Your task to perform on an android device: open chrome privacy settings Image 0: 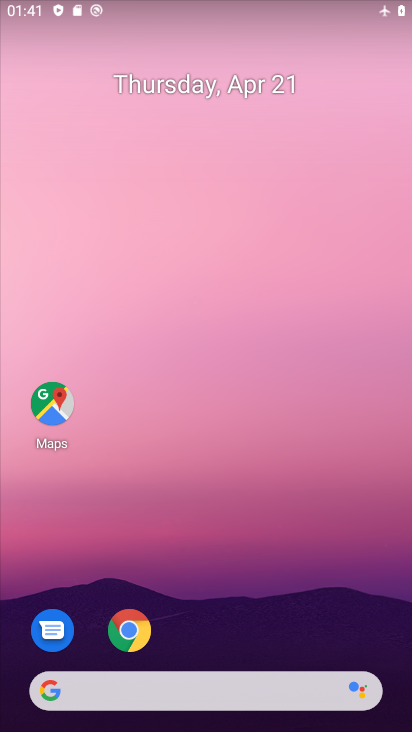
Step 0: click (140, 634)
Your task to perform on an android device: open chrome privacy settings Image 1: 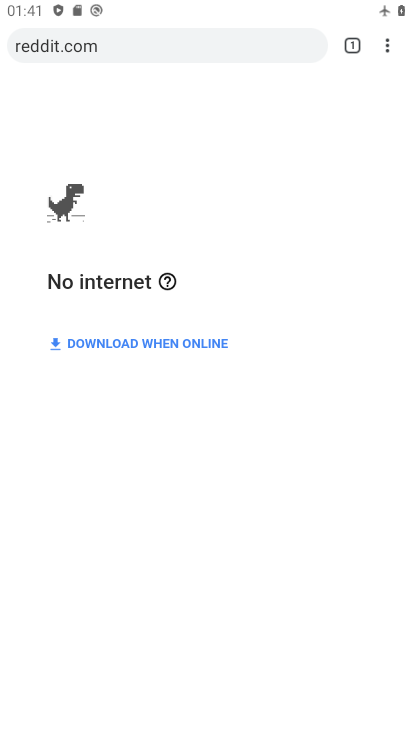
Step 1: click (386, 58)
Your task to perform on an android device: open chrome privacy settings Image 2: 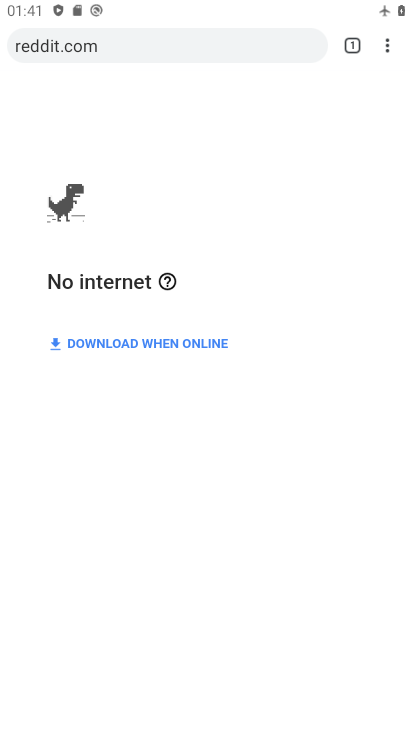
Step 2: click (383, 39)
Your task to perform on an android device: open chrome privacy settings Image 3: 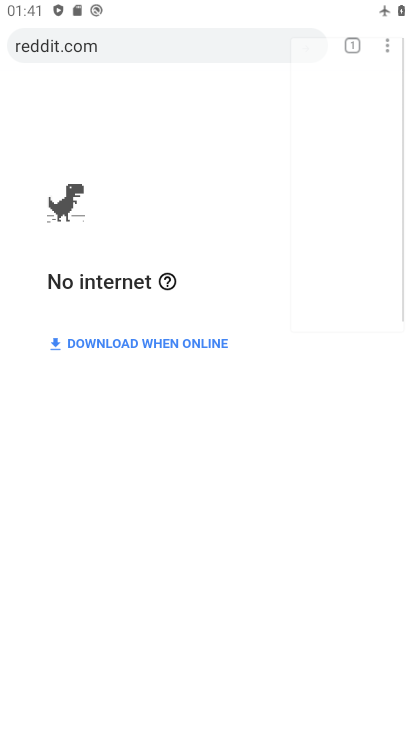
Step 3: click (383, 39)
Your task to perform on an android device: open chrome privacy settings Image 4: 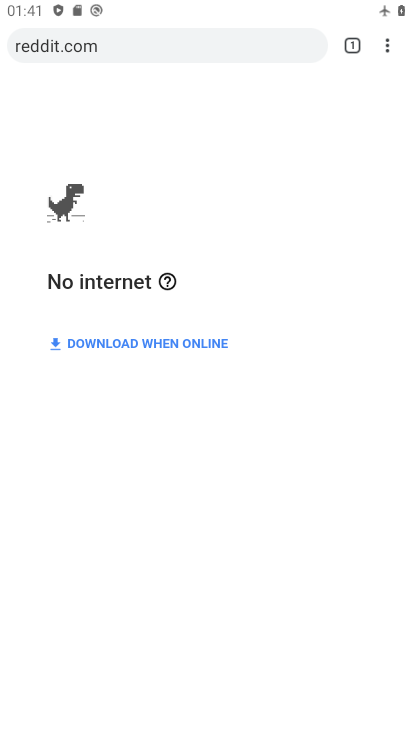
Step 4: click (383, 55)
Your task to perform on an android device: open chrome privacy settings Image 5: 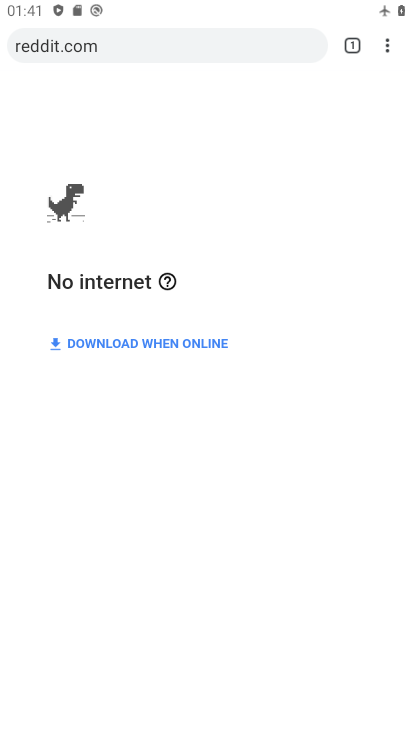
Step 5: click (390, 48)
Your task to perform on an android device: open chrome privacy settings Image 6: 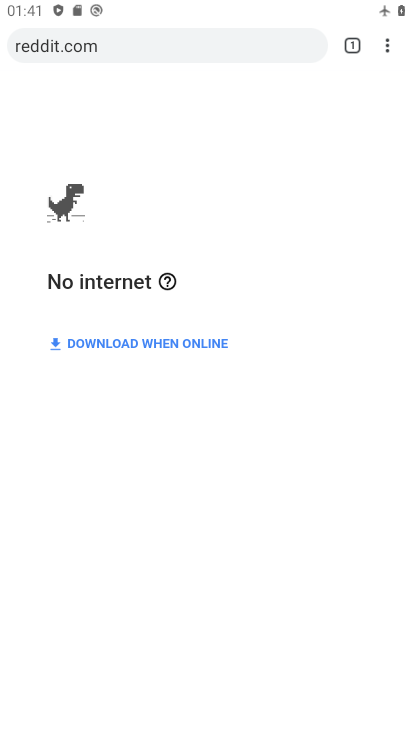
Step 6: click (390, 49)
Your task to perform on an android device: open chrome privacy settings Image 7: 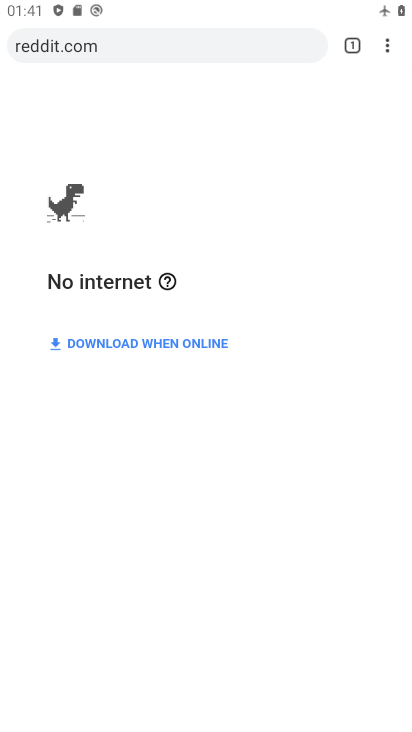
Step 7: click (391, 53)
Your task to perform on an android device: open chrome privacy settings Image 8: 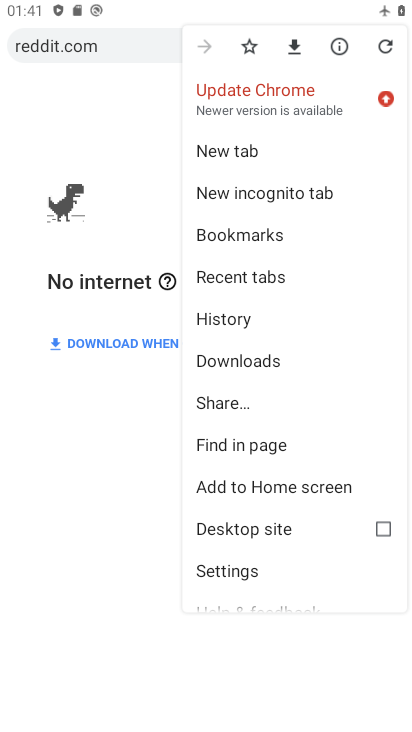
Step 8: click (257, 573)
Your task to perform on an android device: open chrome privacy settings Image 9: 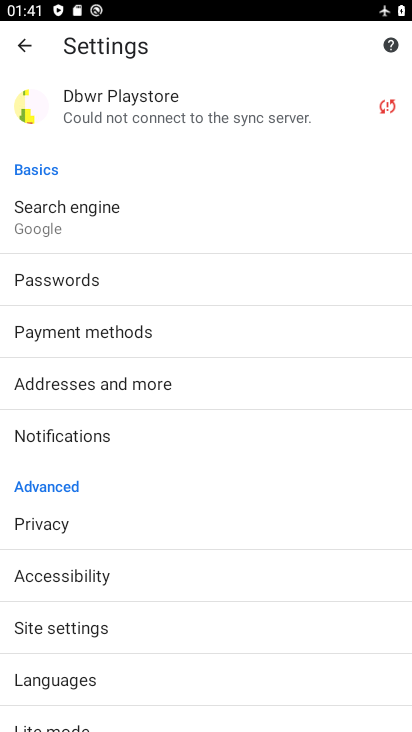
Step 9: click (200, 531)
Your task to perform on an android device: open chrome privacy settings Image 10: 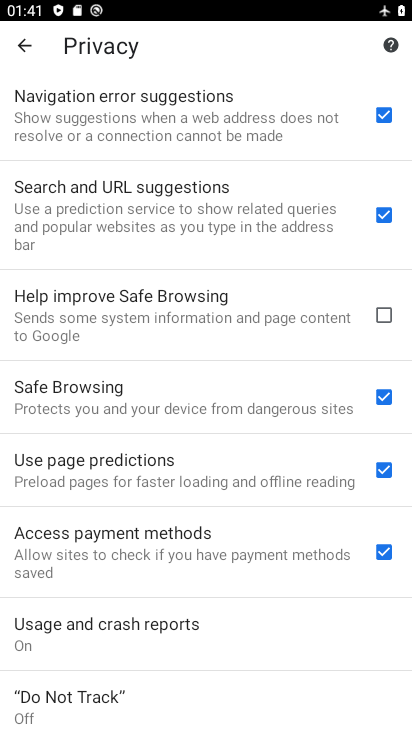
Step 10: task complete